Your task to perform on an android device: set an alarm Image 0: 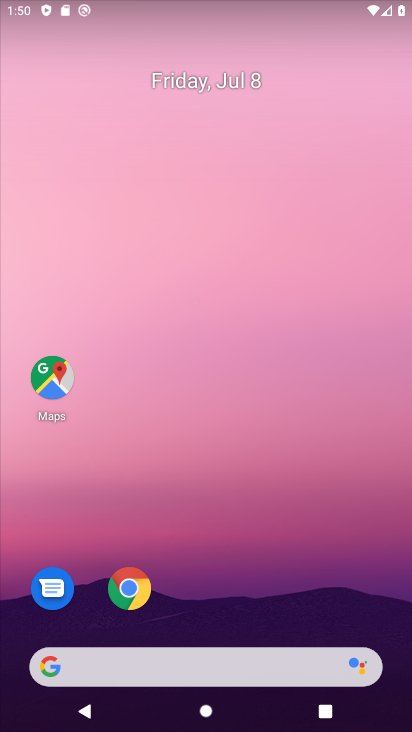
Step 0: drag from (221, 637) to (407, 102)
Your task to perform on an android device: set an alarm Image 1: 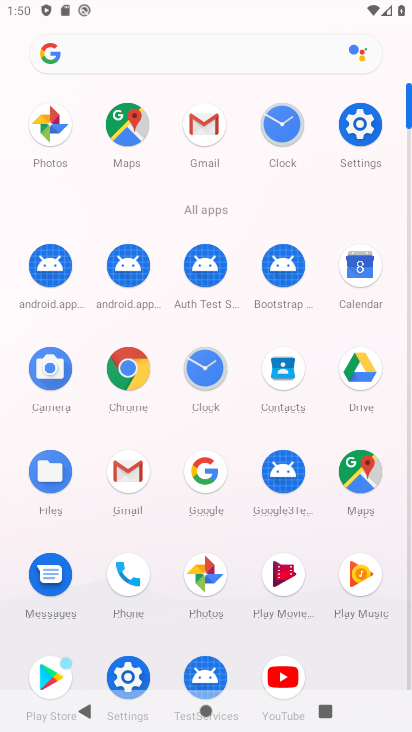
Step 1: click (211, 371)
Your task to perform on an android device: set an alarm Image 2: 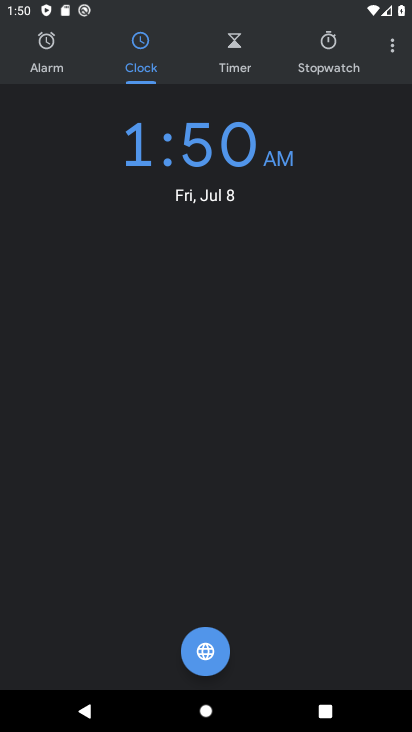
Step 2: click (84, 72)
Your task to perform on an android device: set an alarm Image 3: 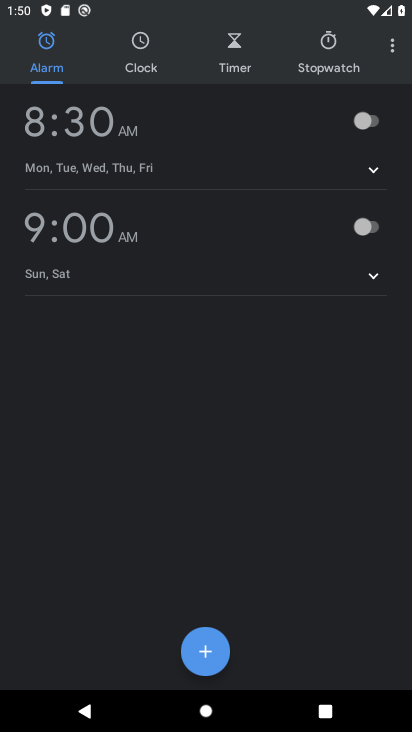
Step 3: click (391, 124)
Your task to perform on an android device: set an alarm Image 4: 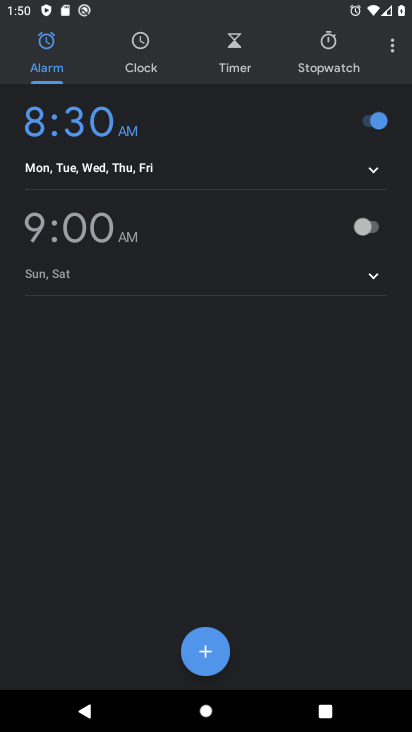
Step 4: click (391, 233)
Your task to perform on an android device: set an alarm Image 5: 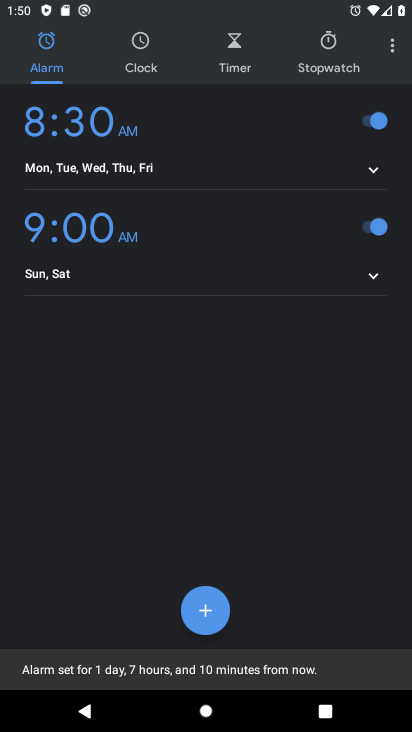
Step 5: task complete